Your task to perform on an android device: turn off sleep mode Image 0: 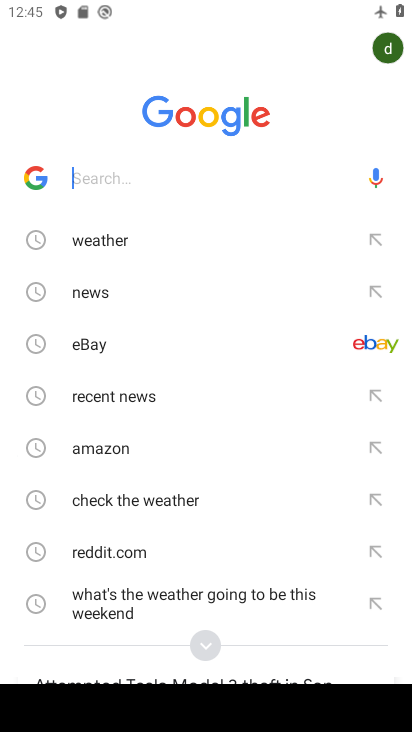
Step 0: press home button
Your task to perform on an android device: turn off sleep mode Image 1: 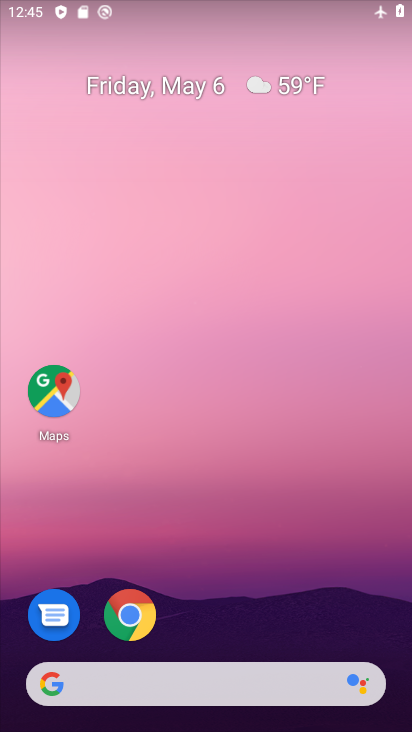
Step 1: drag from (248, 565) to (279, 6)
Your task to perform on an android device: turn off sleep mode Image 2: 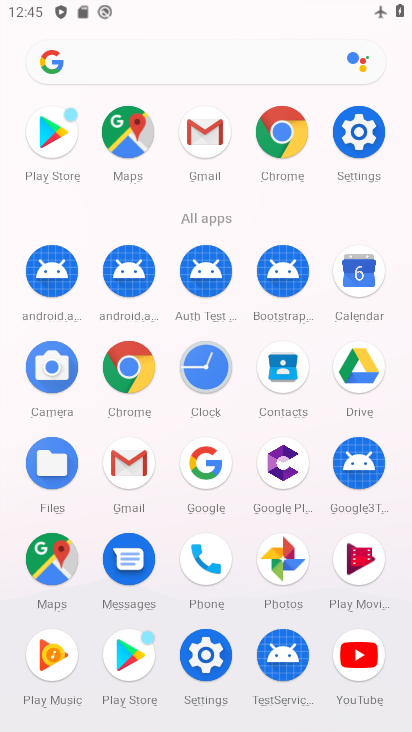
Step 2: click (350, 128)
Your task to perform on an android device: turn off sleep mode Image 3: 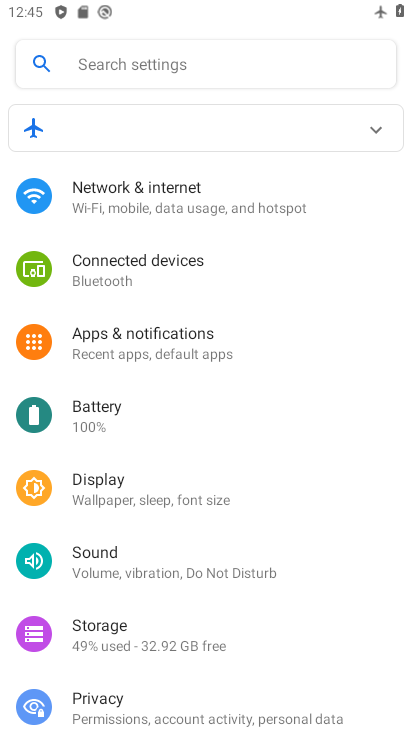
Step 3: click (156, 490)
Your task to perform on an android device: turn off sleep mode Image 4: 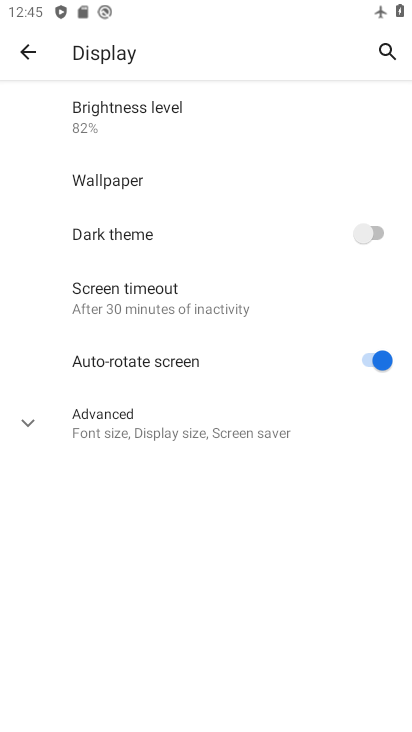
Step 4: click (26, 416)
Your task to perform on an android device: turn off sleep mode Image 5: 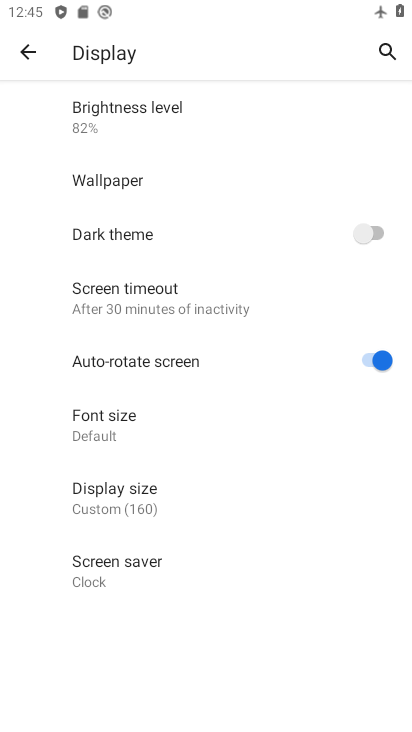
Step 5: task complete